Your task to perform on an android device: add a label to a message in the gmail app Image 0: 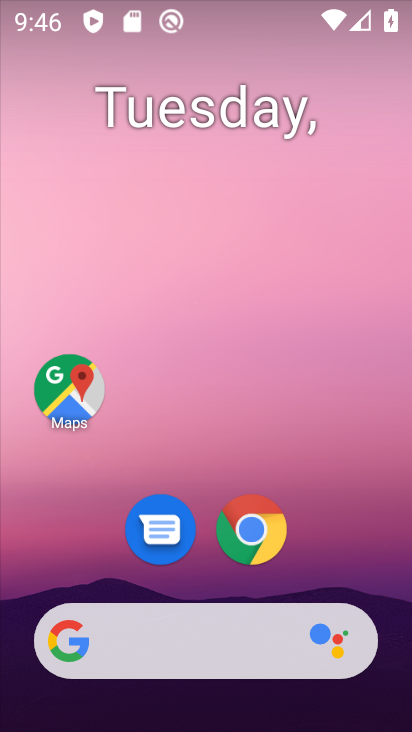
Step 0: drag from (267, 160) to (286, 44)
Your task to perform on an android device: add a label to a message in the gmail app Image 1: 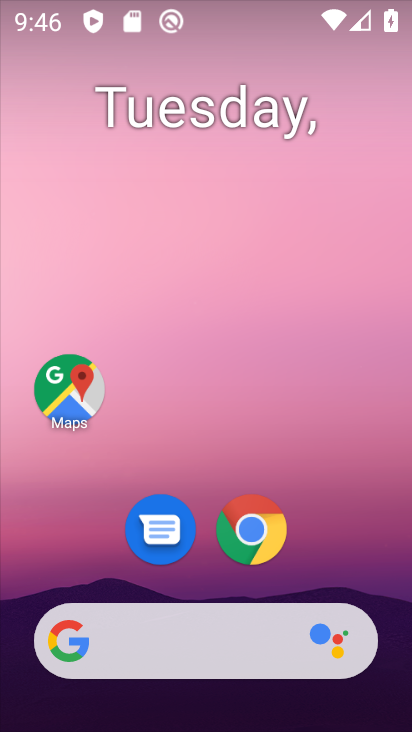
Step 1: drag from (271, 654) to (209, 36)
Your task to perform on an android device: add a label to a message in the gmail app Image 2: 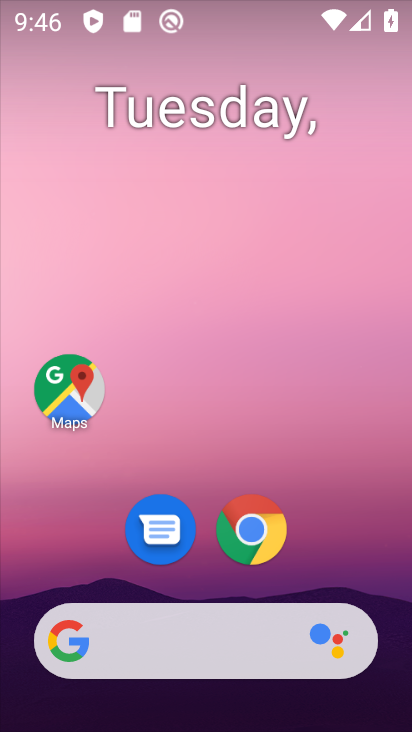
Step 2: drag from (299, 692) to (304, 4)
Your task to perform on an android device: add a label to a message in the gmail app Image 3: 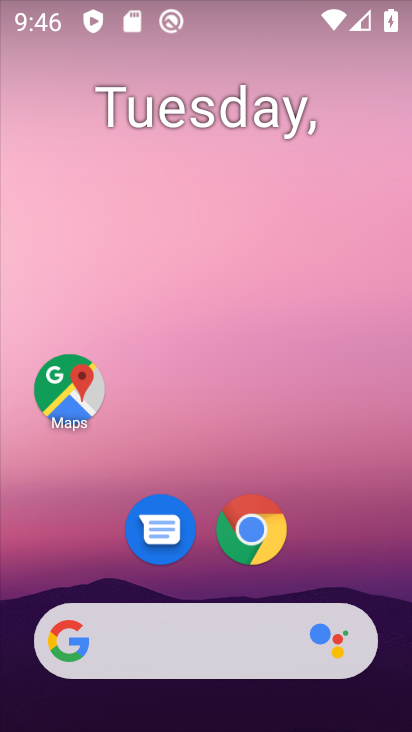
Step 3: click (342, 534)
Your task to perform on an android device: add a label to a message in the gmail app Image 4: 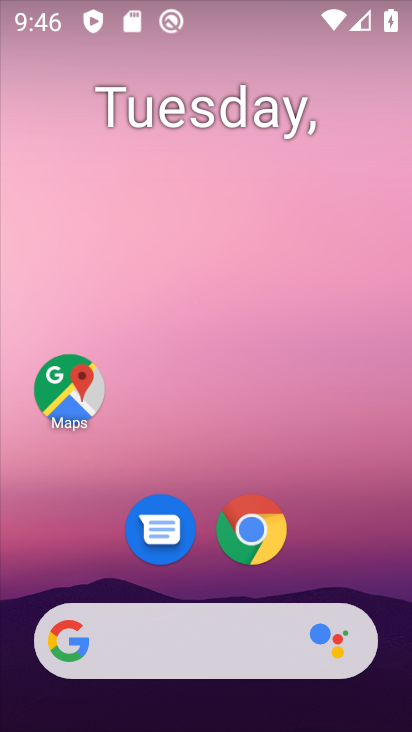
Step 4: drag from (334, 613) to (306, 66)
Your task to perform on an android device: add a label to a message in the gmail app Image 5: 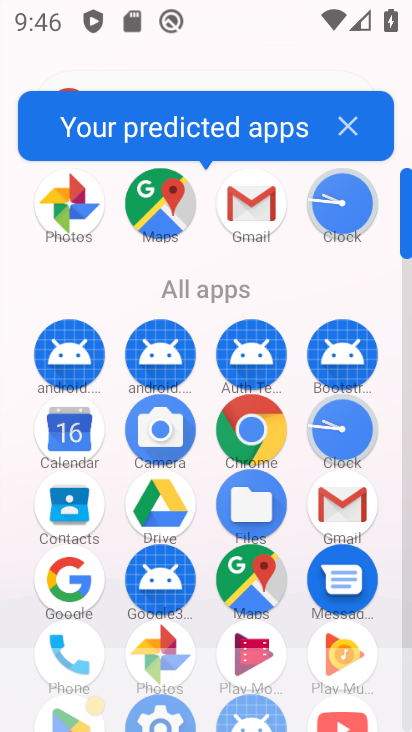
Step 5: click (253, 204)
Your task to perform on an android device: add a label to a message in the gmail app Image 6: 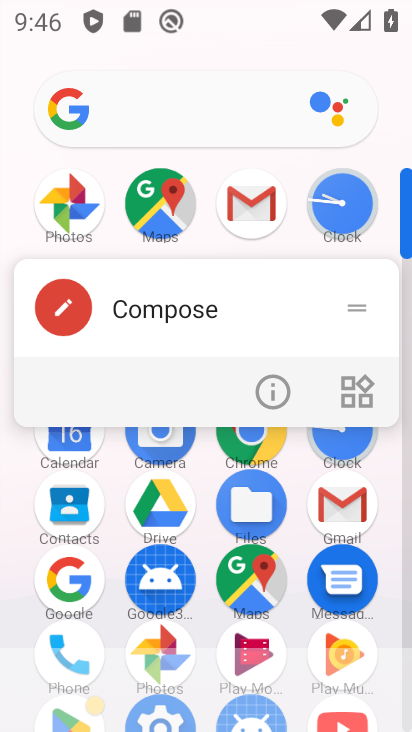
Step 6: click (253, 203)
Your task to perform on an android device: add a label to a message in the gmail app Image 7: 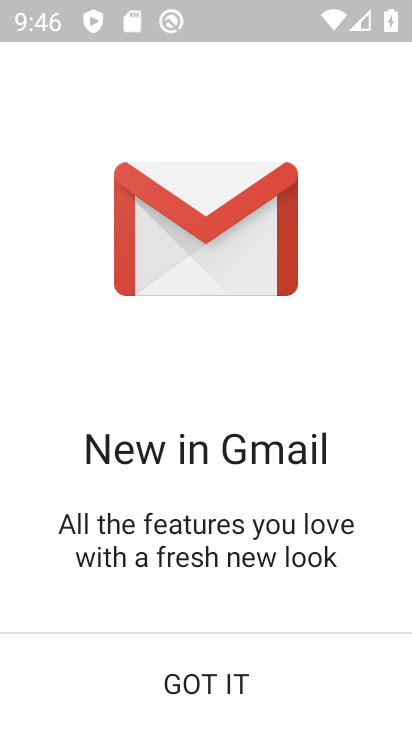
Step 7: click (219, 687)
Your task to perform on an android device: add a label to a message in the gmail app Image 8: 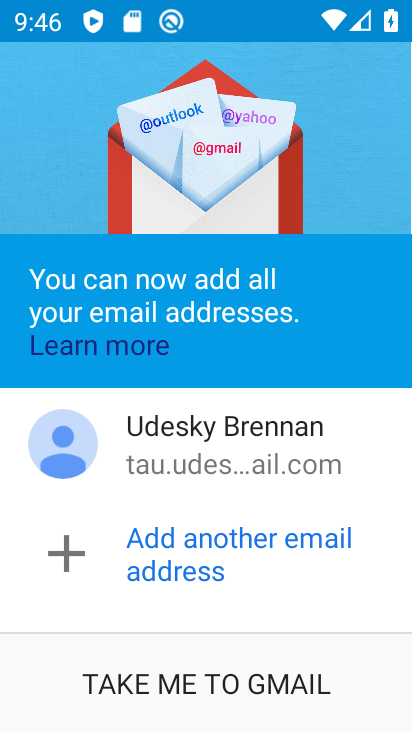
Step 8: click (219, 687)
Your task to perform on an android device: add a label to a message in the gmail app Image 9: 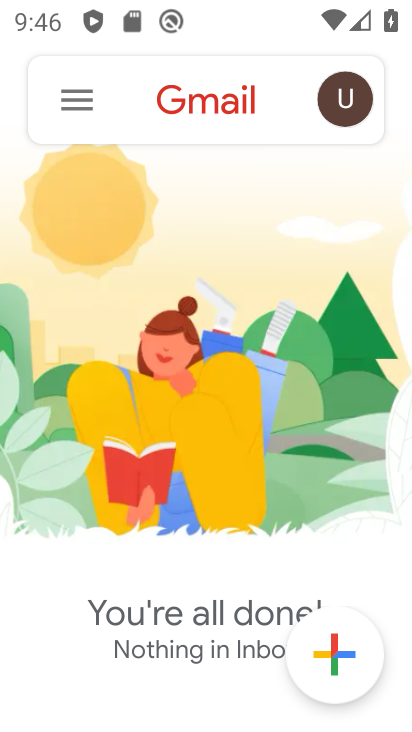
Step 9: click (72, 92)
Your task to perform on an android device: add a label to a message in the gmail app Image 10: 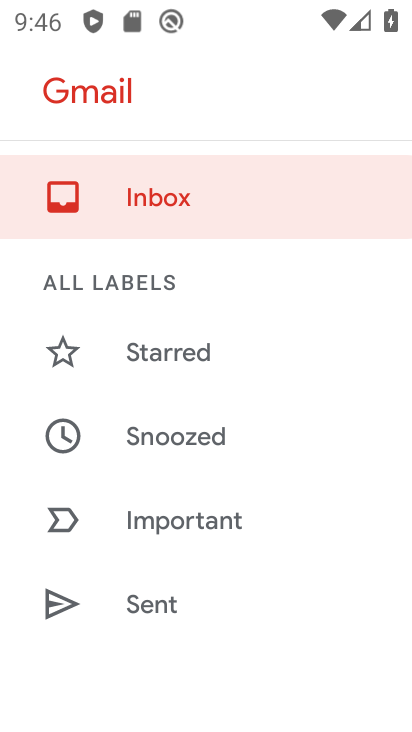
Step 10: task complete